Your task to perform on an android device: turn on priority inbox in the gmail app Image 0: 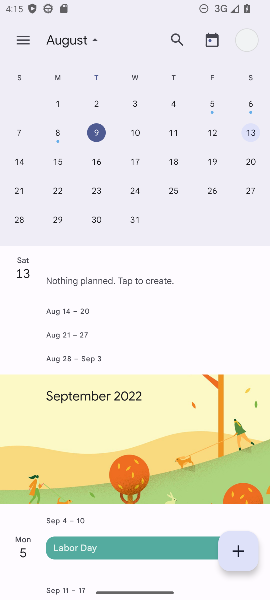
Step 0: press home button
Your task to perform on an android device: turn on priority inbox in the gmail app Image 1: 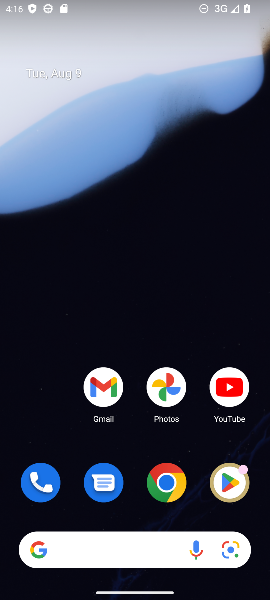
Step 1: click (106, 406)
Your task to perform on an android device: turn on priority inbox in the gmail app Image 2: 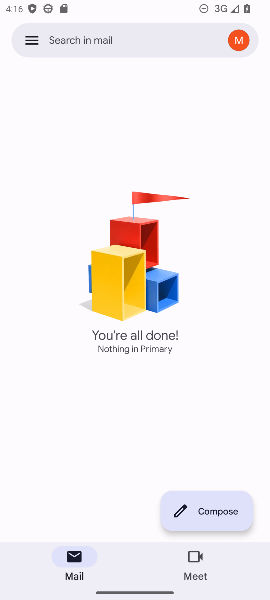
Step 2: click (35, 44)
Your task to perform on an android device: turn on priority inbox in the gmail app Image 3: 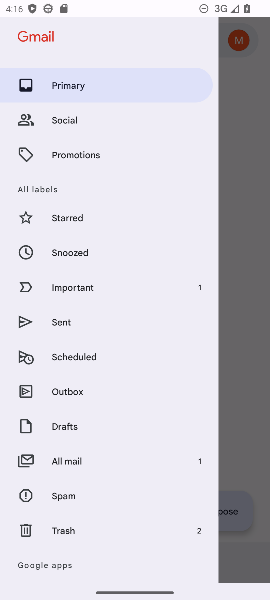
Step 3: drag from (90, 519) to (95, 286)
Your task to perform on an android device: turn on priority inbox in the gmail app Image 4: 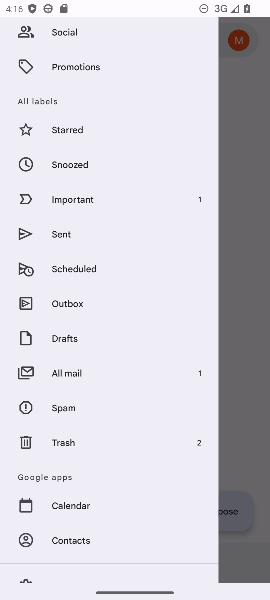
Step 4: drag from (78, 548) to (82, 318)
Your task to perform on an android device: turn on priority inbox in the gmail app Image 5: 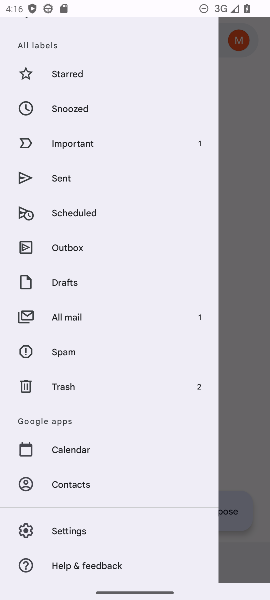
Step 5: click (72, 533)
Your task to perform on an android device: turn on priority inbox in the gmail app Image 6: 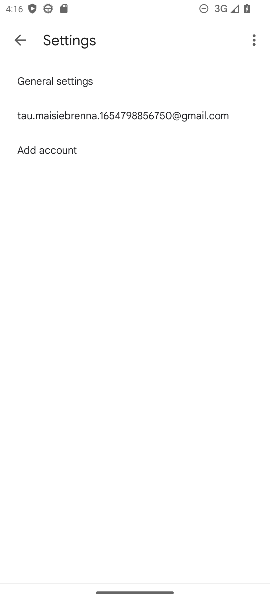
Step 6: click (97, 115)
Your task to perform on an android device: turn on priority inbox in the gmail app Image 7: 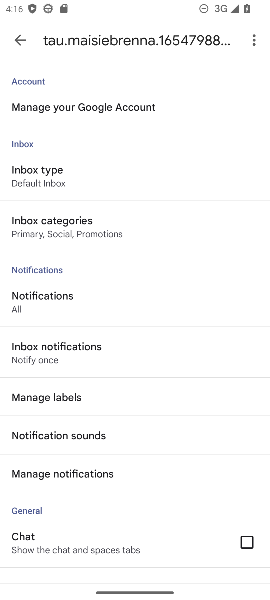
Step 7: click (20, 186)
Your task to perform on an android device: turn on priority inbox in the gmail app Image 8: 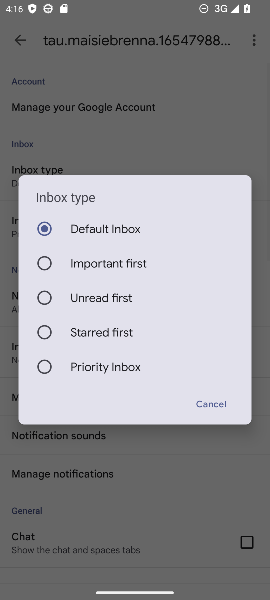
Step 8: click (112, 366)
Your task to perform on an android device: turn on priority inbox in the gmail app Image 9: 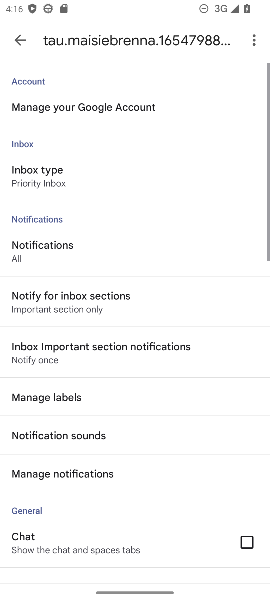
Step 9: task complete